Your task to perform on an android device: Open Android settings Image 0: 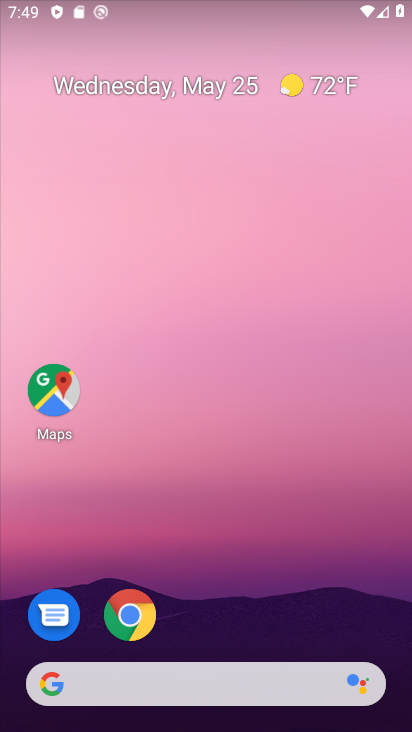
Step 0: drag from (283, 626) to (294, 32)
Your task to perform on an android device: Open Android settings Image 1: 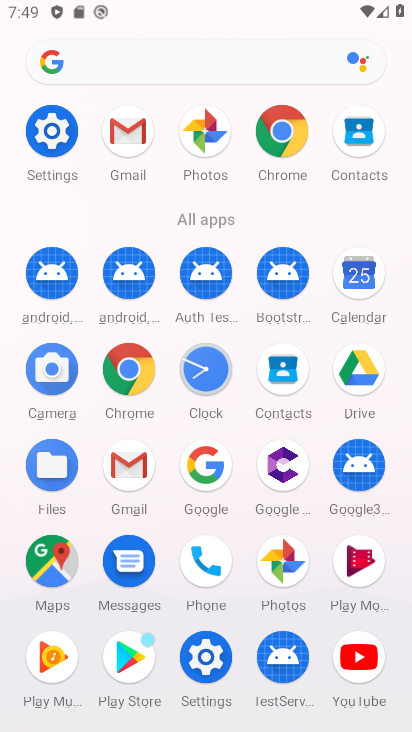
Step 1: click (61, 136)
Your task to perform on an android device: Open Android settings Image 2: 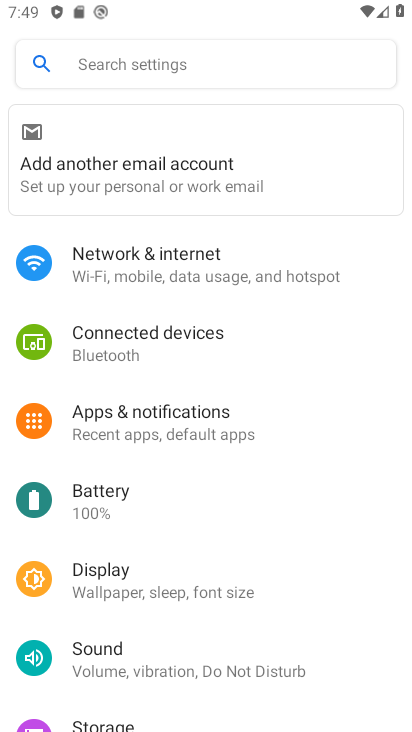
Step 2: drag from (220, 639) to (247, 79)
Your task to perform on an android device: Open Android settings Image 3: 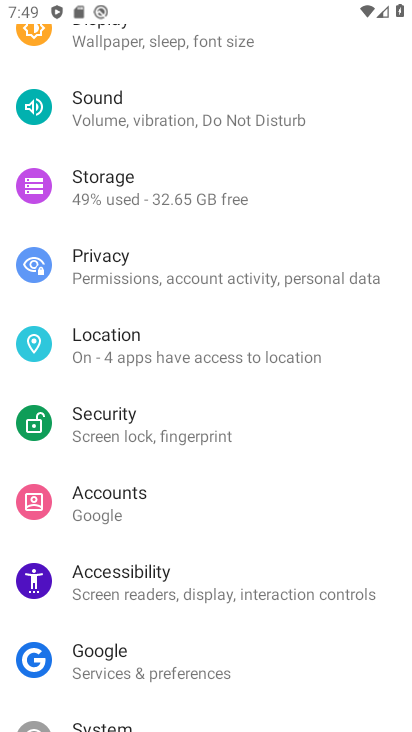
Step 3: drag from (248, 531) to (258, 140)
Your task to perform on an android device: Open Android settings Image 4: 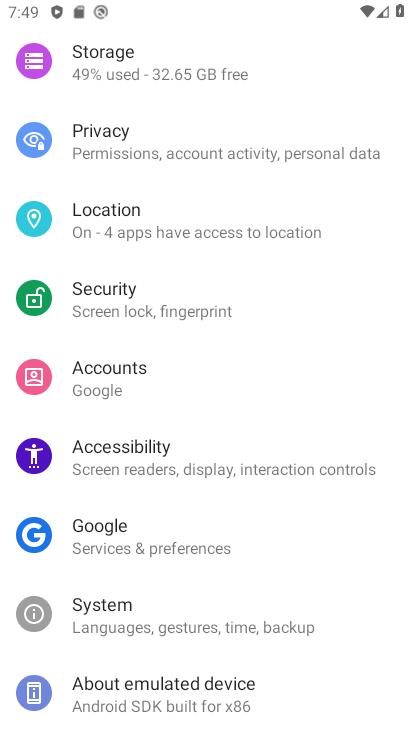
Step 4: click (188, 694)
Your task to perform on an android device: Open Android settings Image 5: 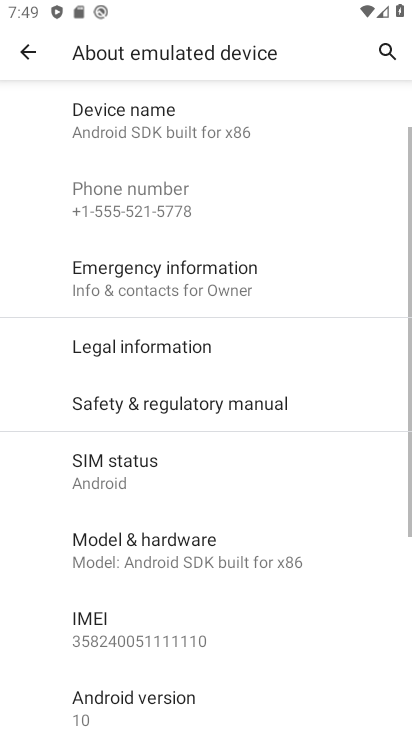
Step 5: task complete